Your task to perform on an android device: Go to settings Image 0: 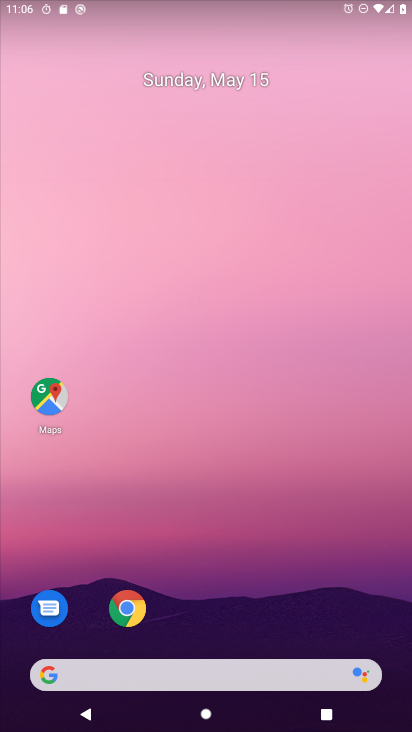
Step 0: drag from (216, 564) to (227, 274)
Your task to perform on an android device: Go to settings Image 1: 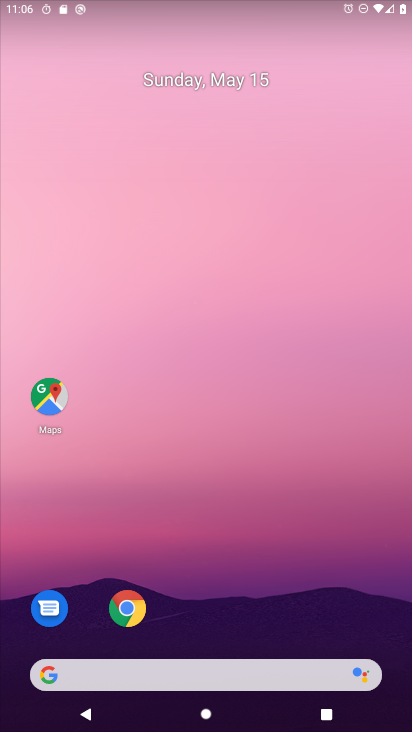
Step 1: drag from (289, 615) to (277, 224)
Your task to perform on an android device: Go to settings Image 2: 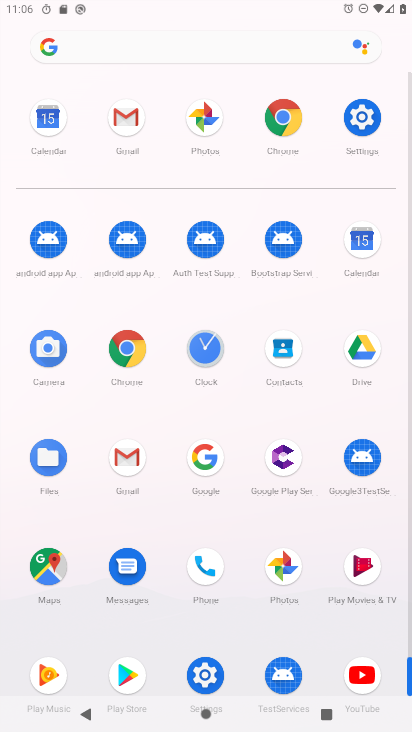
Step 2: click (350, 108)
Your task to perform on an android device: Go to settings Image 3: 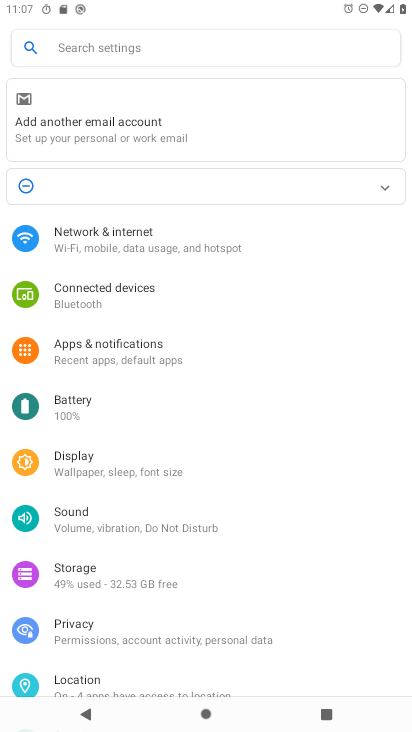
Step 3: task complete